Your task to perform on an android device: change the clock display to analog Image 0: 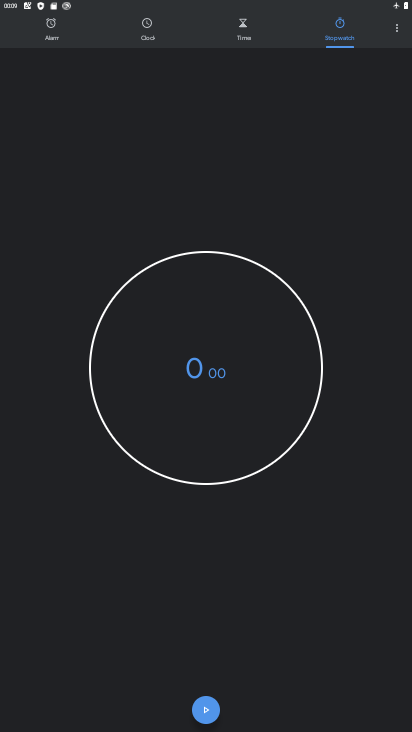
Step 0: press home button
Your task to perform on an android device: change the clock display to analog Image 1: 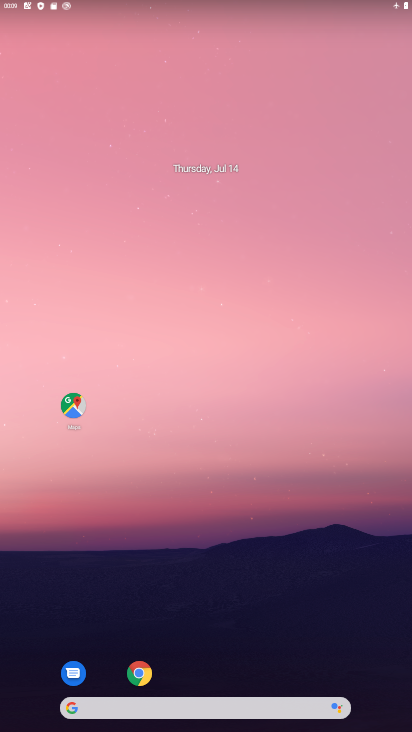
Step 1: drag from (222, 651) to (187, 224)
Your task to perform on an android device: change the clock display to analog Image 2: 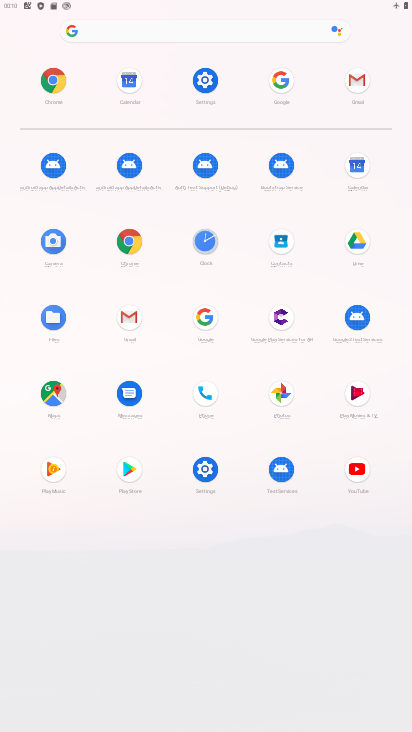
Step 2: click (201, 245)
Your task to perform on an android device: change the clock display to analog Image 3: 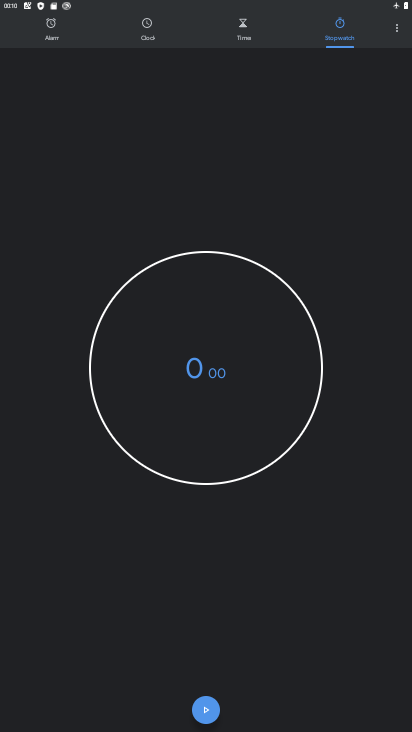
Step 3: click (394, 22)
Your task to perform on an android device: change the clock display to analog Image 4: 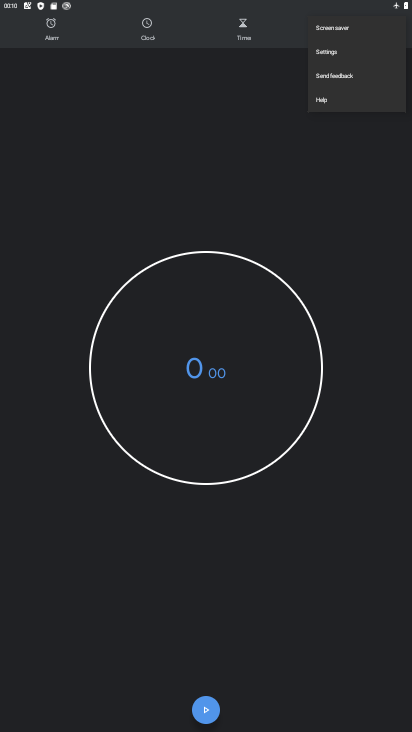
Step 4: click (338, 54)
Your task to perform on an android device: change the clock display to analog Image 5: 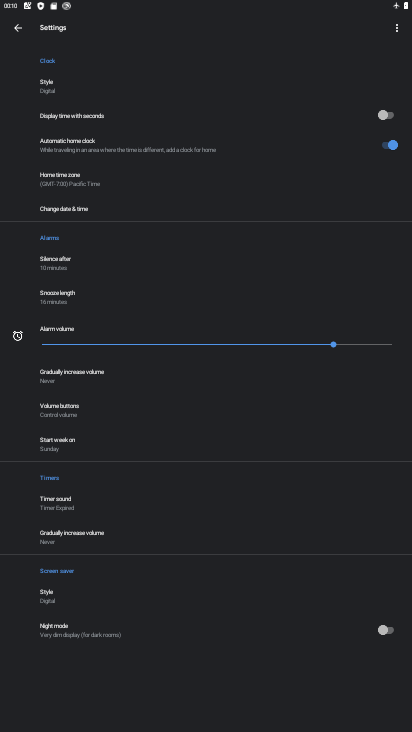
Step 5: click (77, 88)
Your task to perform on an android device: change the clock display to analog Image 6: 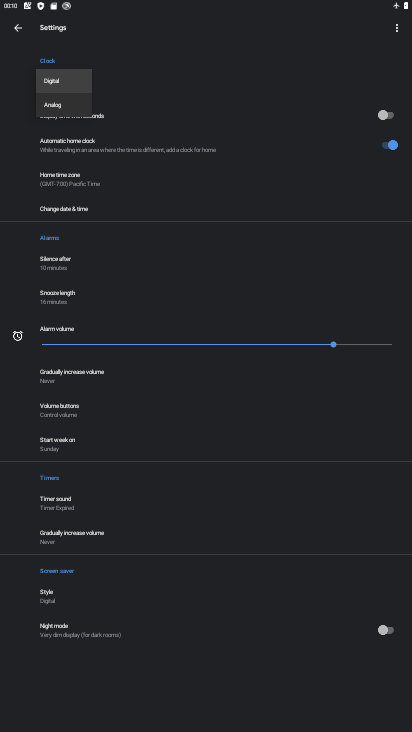
Step 6: click (60, 101)
Your task to perform on an android device: change the clock display to analog Image 7: 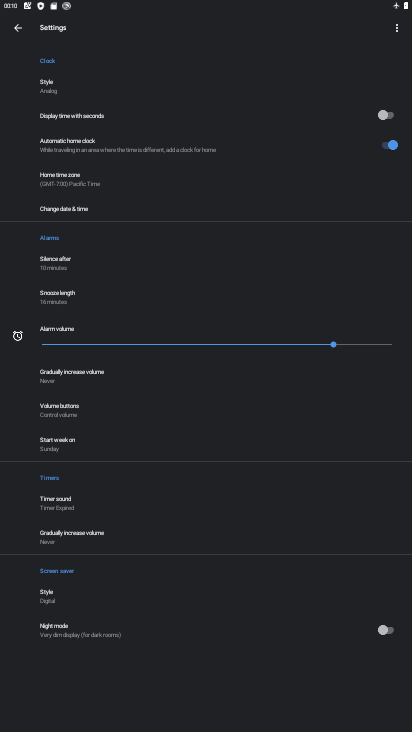
Step 7: task complete